Your task to perform on an android device: Go to ESPN.com Image 0: 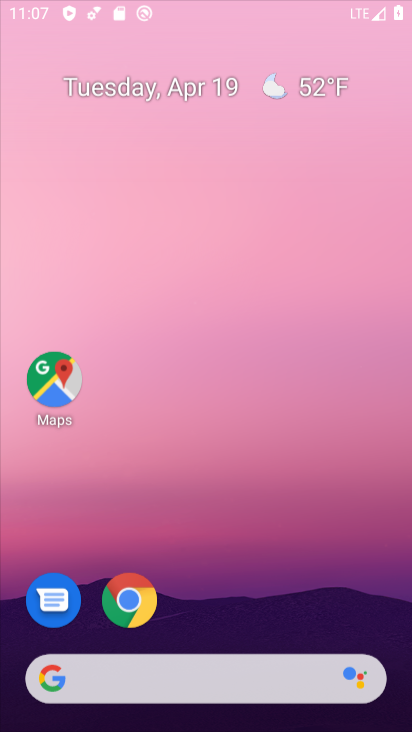
Step 0: drag from (140, 400) to (101, 83)
Your task to perform on an android device: Go to ESPN.com Image 1: 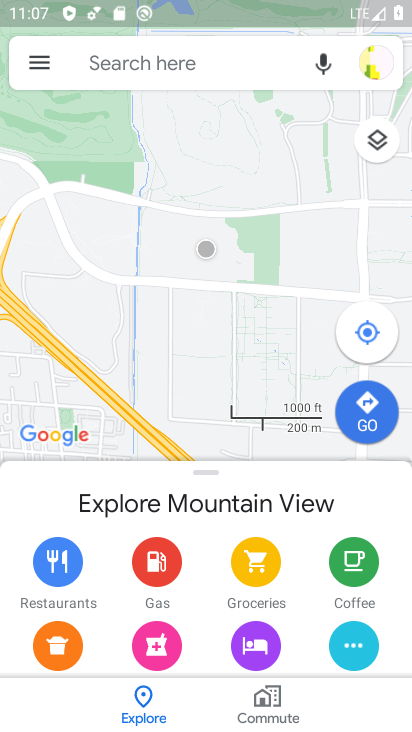
Step 1: press home button
Your task to perform on an android device: Go to ESPN.com Image 2: 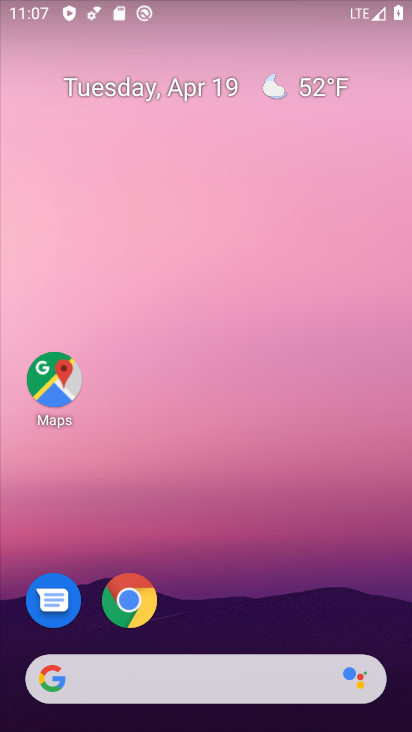
Step 2: click (141, 605)
Your task to perform on an android device: Go to ESPN.com Image 3: 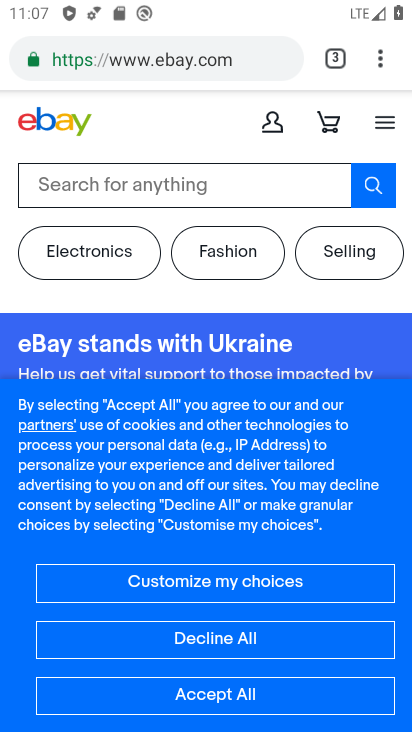
Step 3: click (345, 52)
Your task to perform on an android device: Go to ESPN.com Image 4: 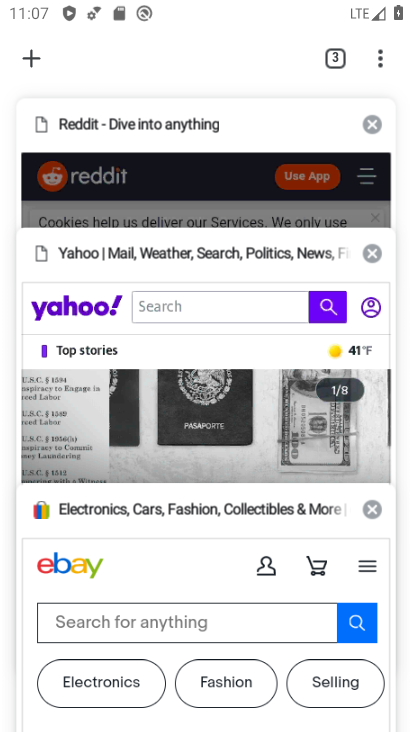
Step 4: click (28, 61)
Your task to perform on an android device: Go to ESPN.com Image 5: 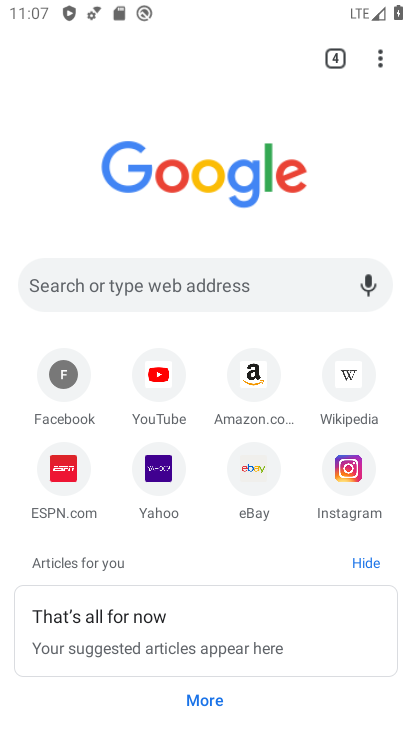
Step 5: click (66, 471)
Your task to perform on an android device: Go to ESPN.com Image 6: 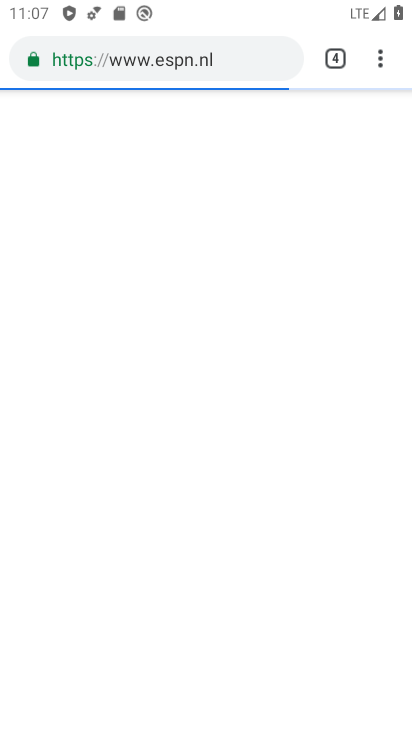
Step 6: task complete